Your task to perform on an android device: Search for vegetarian restaurants on Maps Image 0: 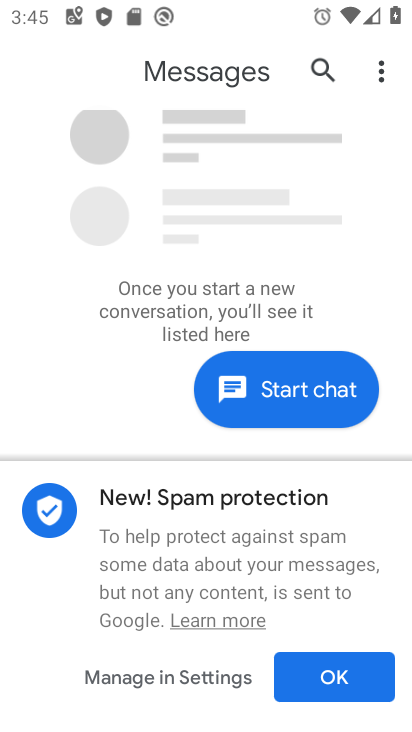
Step 0: press home button
Your task to perform on an android device: Search for vegetarian restaurants on Maps Image 1: 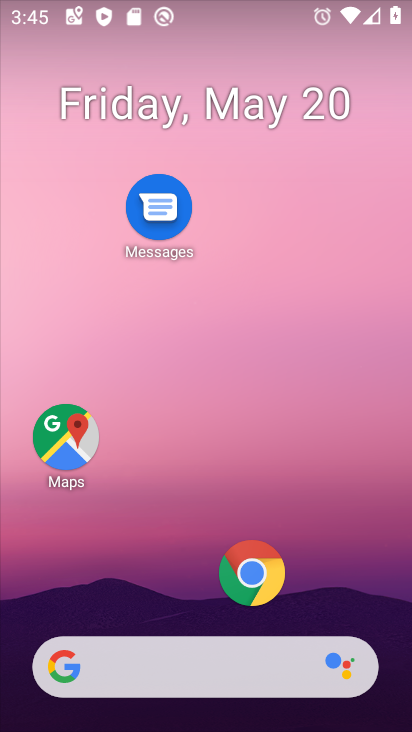
Step 1: drag from (194, 624) to (179, 113)
Your task to perform on an android device: Search for vegetarian restaurants on Maps Image 2: 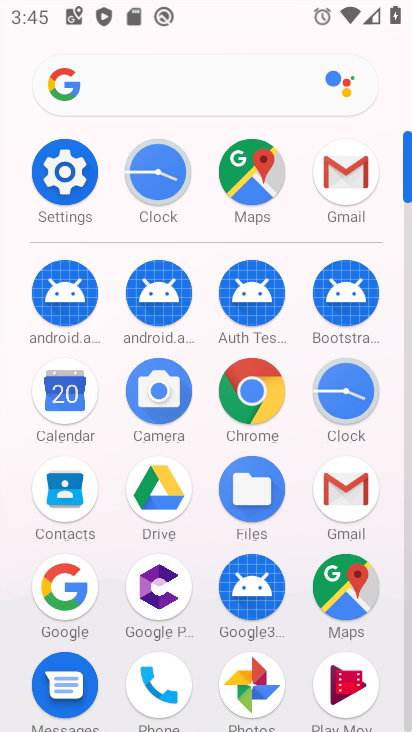
Step 2: click (343, 606)
Your task to perform on an android device: Search for vegetarian restaurants on Maps Image 3: 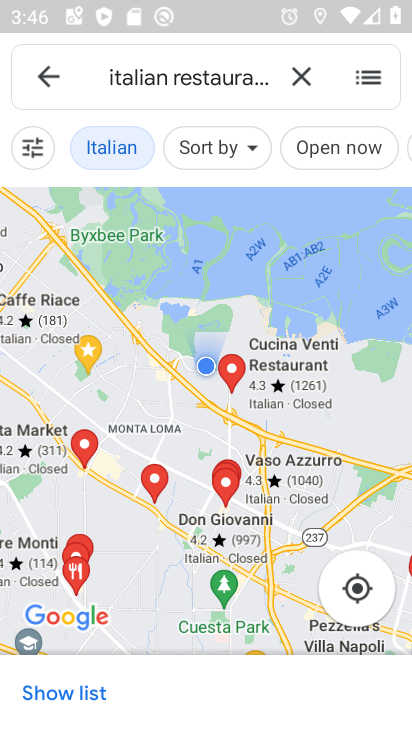
Step 3: click (300, 69)
Your task to perform on an android device: Search for vegetarian restaurants on Maps Image 4: 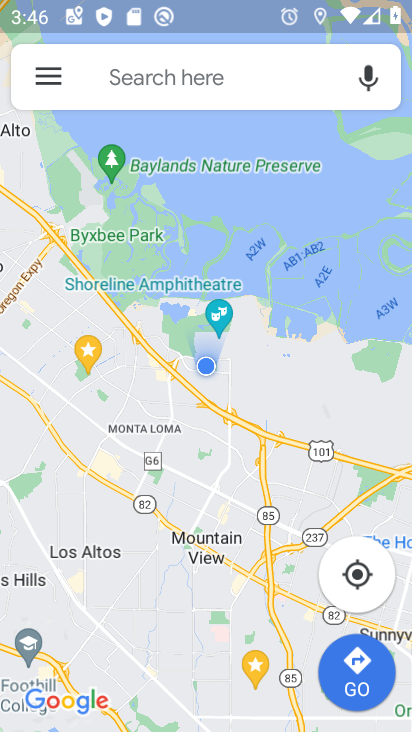
Step 4: click (208, 83)
Your task to perform on an android device: Search for vegetarian restaurants on Maps Image 5: 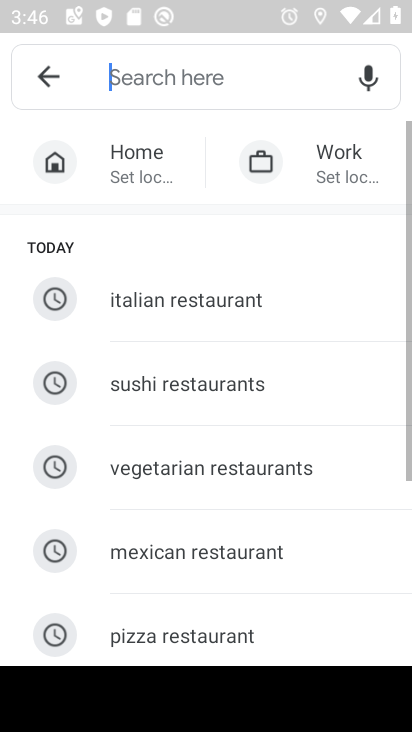
Step 5: click (196, 492)
Your task to perform on an android device: Search for vegetarian restaurants on Maps Image 6: 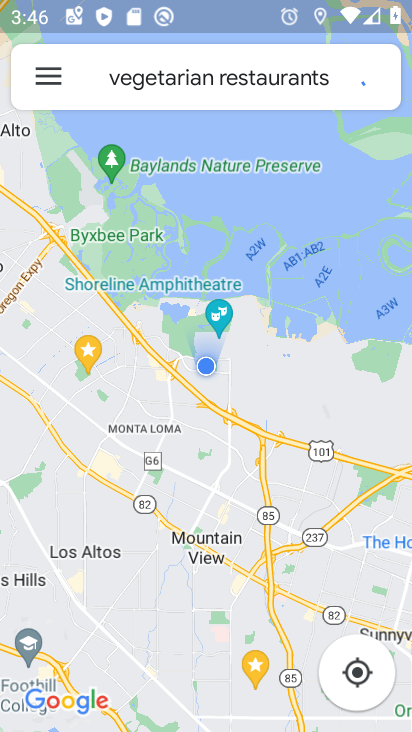
Step 6: task complete